Your task to perform on an android device: Turn on the flashlight Image 0: 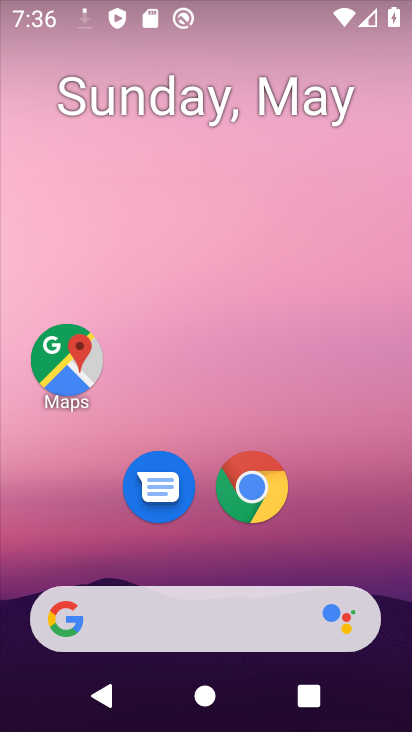
Step 0: drag from (210, 559) to (208, 202)
Your task to perform on an android device: Turn on the flashlight Image 1: 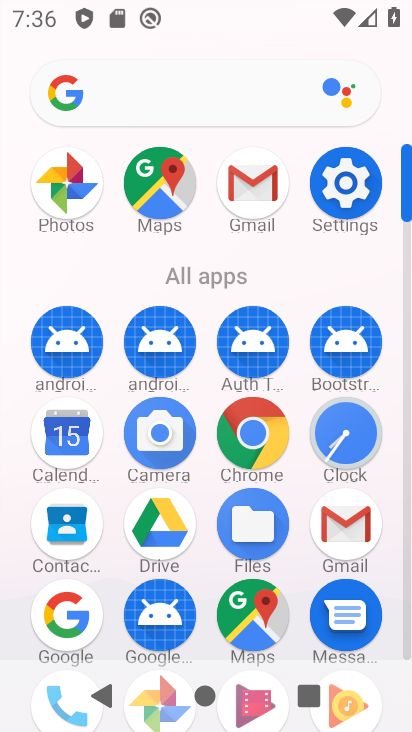
Step 1: click (353, 182)
Your task to perform on an android device: Turn on the flashlight Image 2: 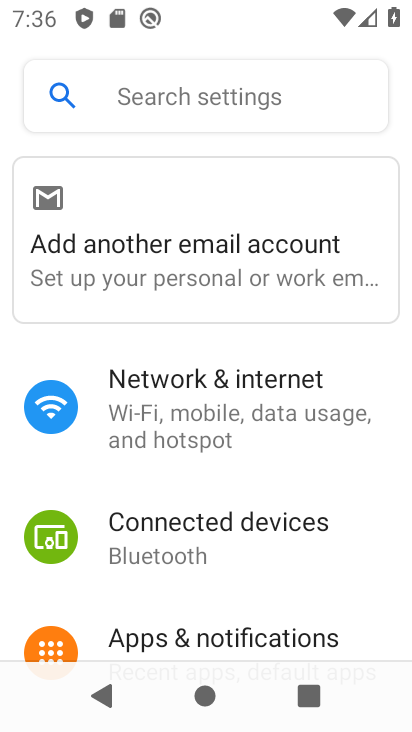
Step 2: drag from (213, 478) to (273, 173)
Your task to perform on an android device: Turn on the flashlight Image 3: 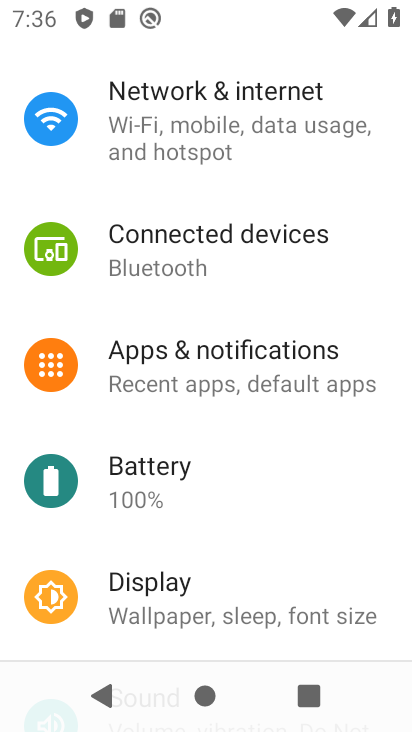
Step 3: click (190, 589)
Your task to perform on an android device: Turn on the flashlight Image 4: 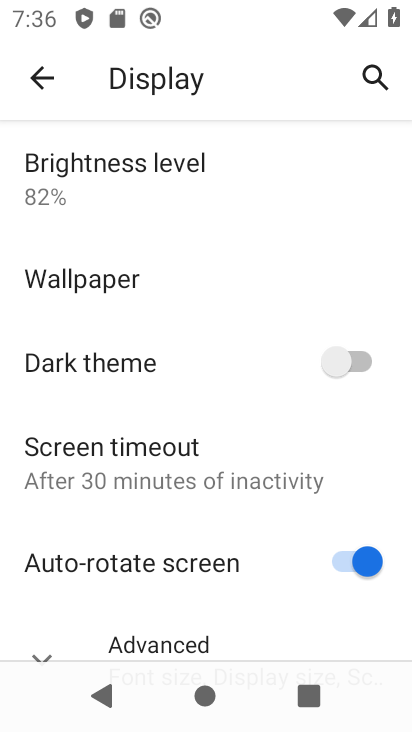
Step 4: task complete